Your task to perform on an android device: uninstall "Move to iOS" Image 0: 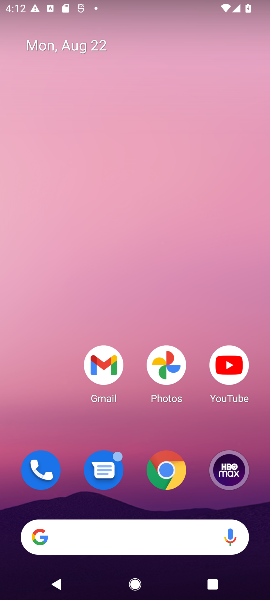
Step 0: drag from (157, 518) to (157, 82)
Your task to perform on an android device: uninstall "Move to iOS" Image 1: 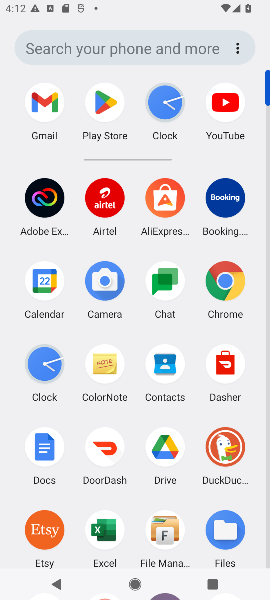
Step 1: click (98, 106)
Your task to perform on an android device: uninstall "Move to iOS" Image 2: 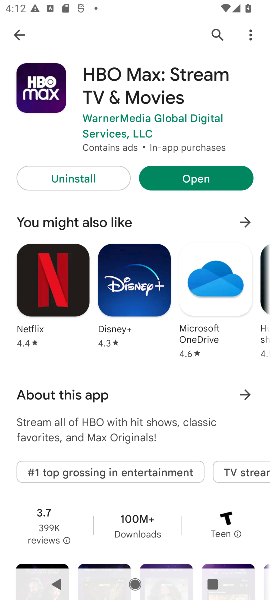
Step 2: click (23, 25)
Your task to perform on an android device: uninstall "Move to iOS" Image 3: 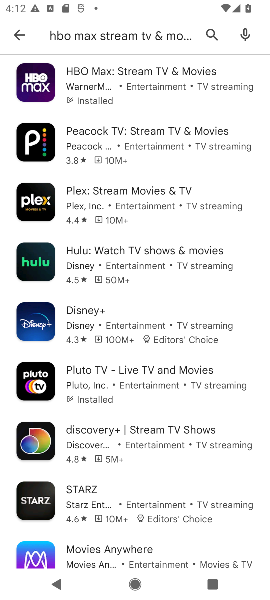
Step 3: click (23, 25)
Your task to perform on an android device: uninstall "Move to iOS" Image 4: 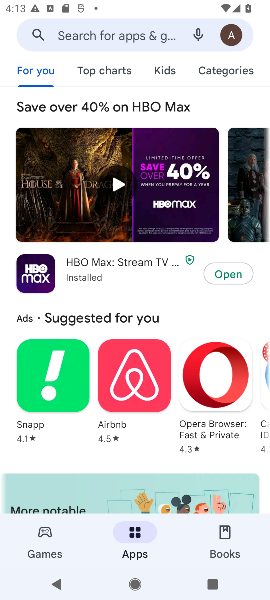
Step 4: click (113, 31)
Your task to perform on an android device: uninstall "Move to iOS" Image 5: 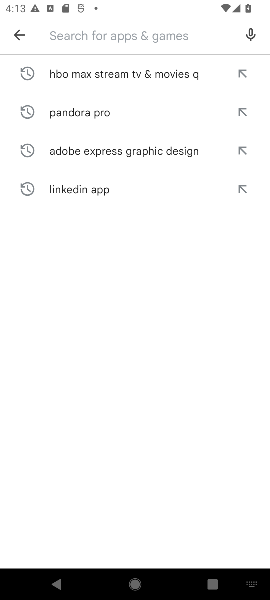
Step 5: type "Move to iOS "
Your task to perform on an android device: uninstall "Move to iOS" Image 6: 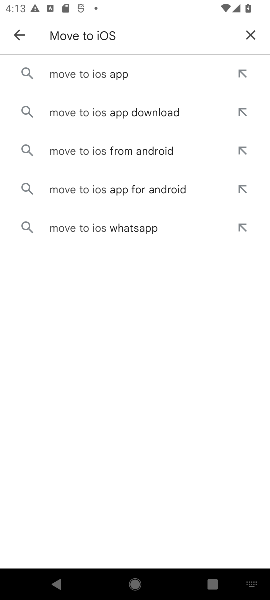
Step 6: click (103, 69)
Your task to perform on an android device: uninstall "Move to iOS" Image 7: 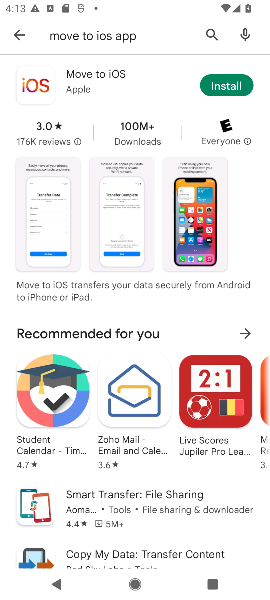
Step 7: click (218, 83)
Your task to perform on an android device: uninstall "Move to iOS" Image 8: 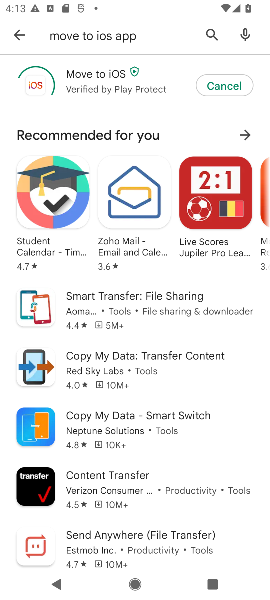
Step 8: click (217, 83)
Your task to perform on an android device: uninstall "Move to iOS" Image 9: 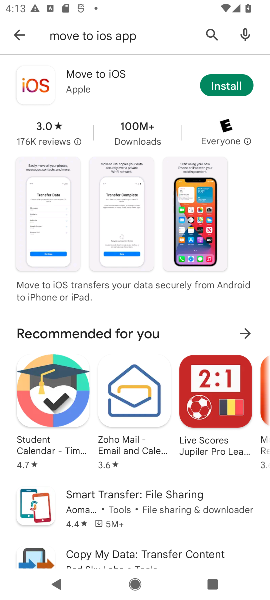
Step 9: click (75, 80)
Your task to perform on an android device: uninstall "Move to iOS" Image 10: 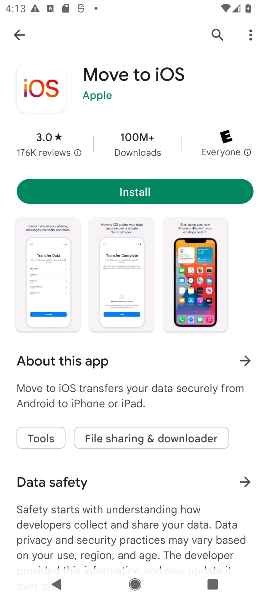
Step 10: task complete